Your task to perform on an android device: Go to privacy settings Image 0: 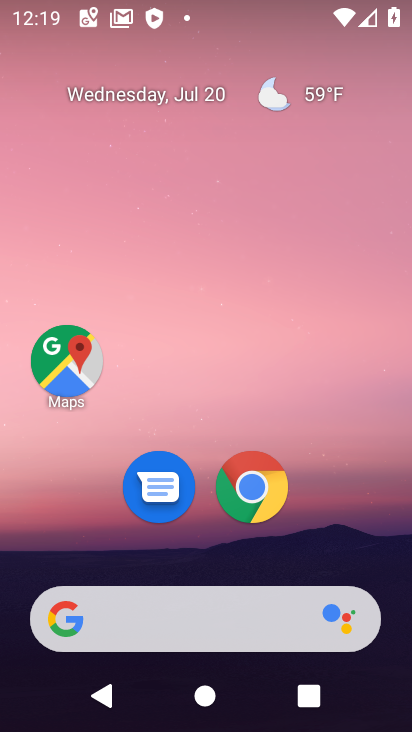
Step 0: drag from (81, 568) to (160, 21)
Your task to perform on an android device: Go to privacy settings Image 1: 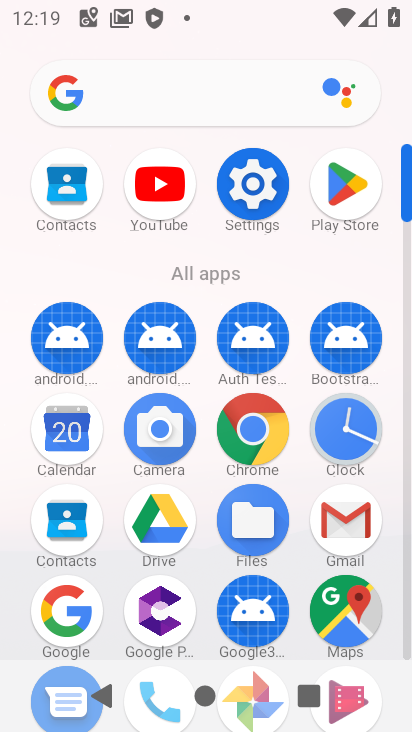
Step 1: click (231, 182)
Your task to perform on an android device: Go to privacy settings Image 2: 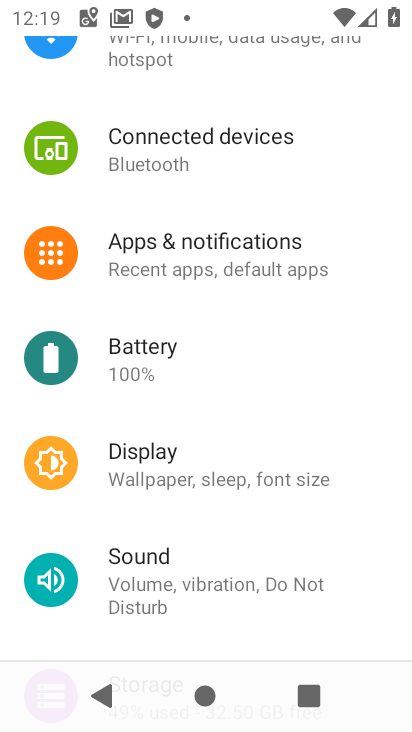
Step 2: drag from (137, 552) to (229, 129)
Your task to perform on an android device: Go to privacy settings Image 3: 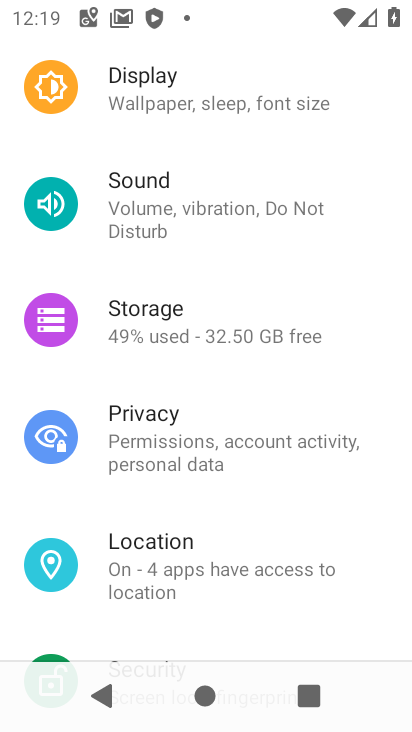
Step 3: click (147, 443)
Your task to perform on an android device: Go to privacy settings Image 4: 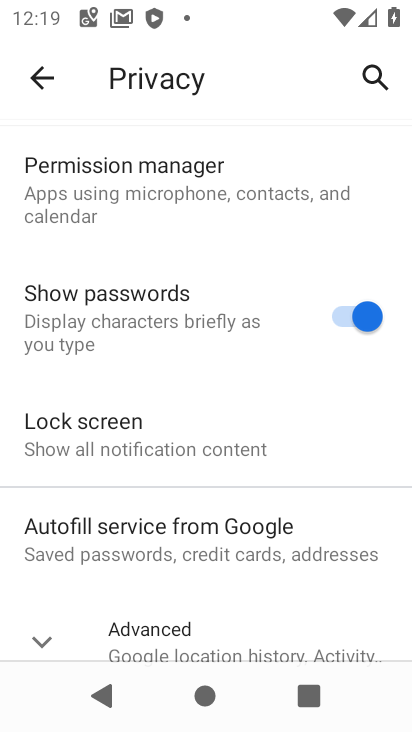
Step 4: task complete